Your task to perform on an android device: What's the weather going to be tomorrow? Image 0: 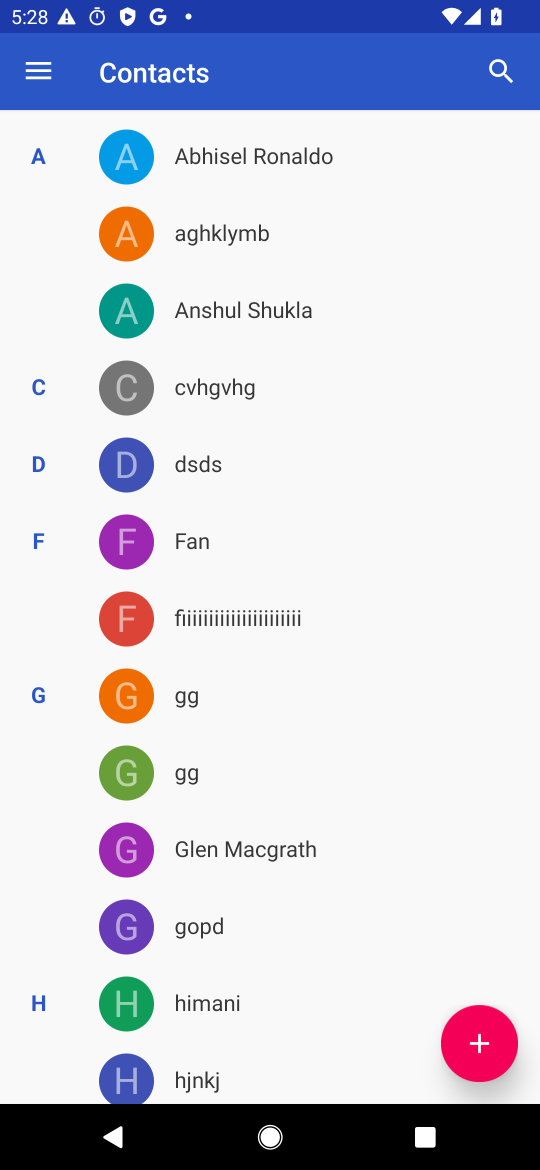
Step 0: press home button
Your task to perform on an android device: What's the weather going to be tomorrow? Image 1: 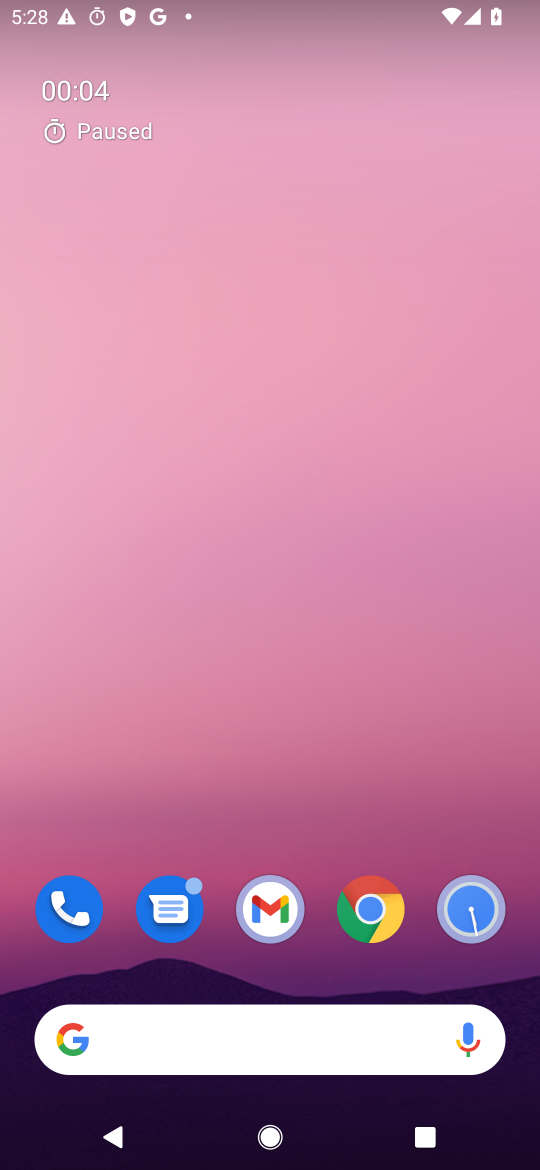
Step 1: click (173, 1047)
Your task to perform on an android device: What's the weather going to be tomorrow? Image 2: 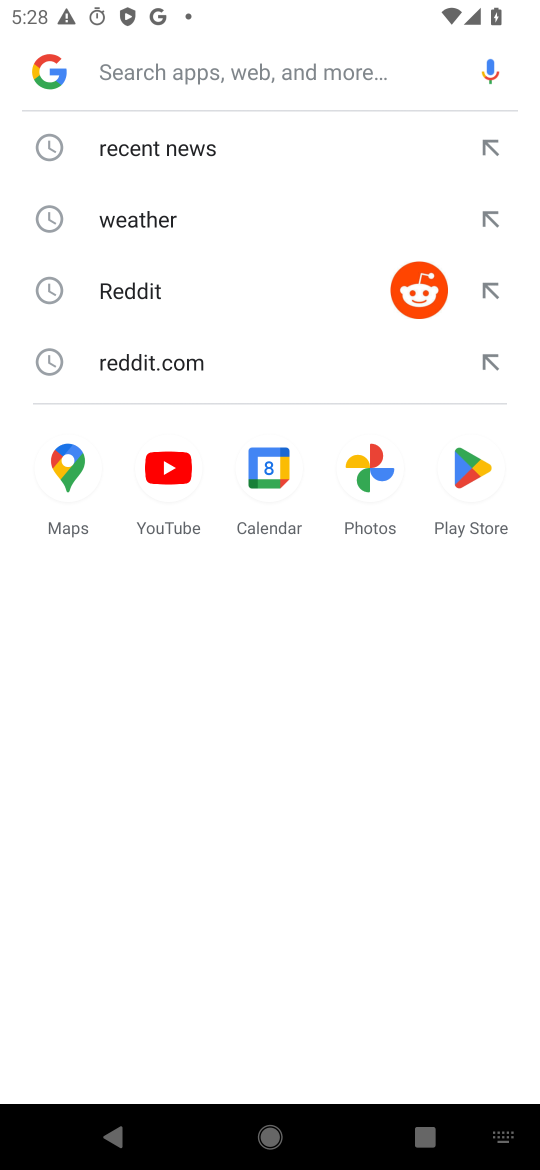
Step 2: click (154, 225)
Your task to perform on an android device: What's the weather going to be tomorrow? Image 3: 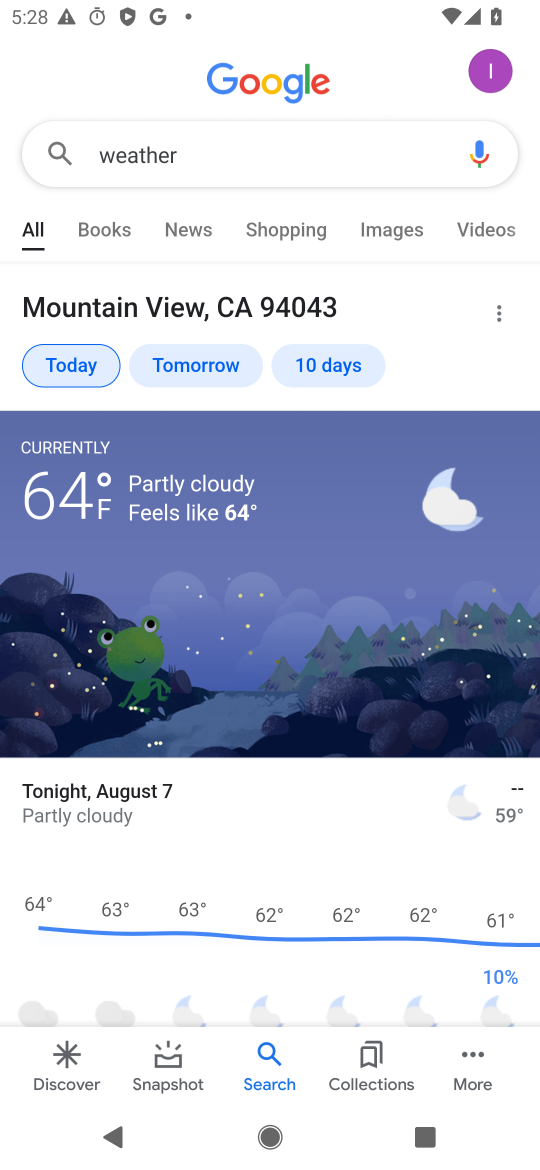
Step 3: click (213, 356)
Your task to perform on an android device: What's the weather going to be tomorrow? Image 4: 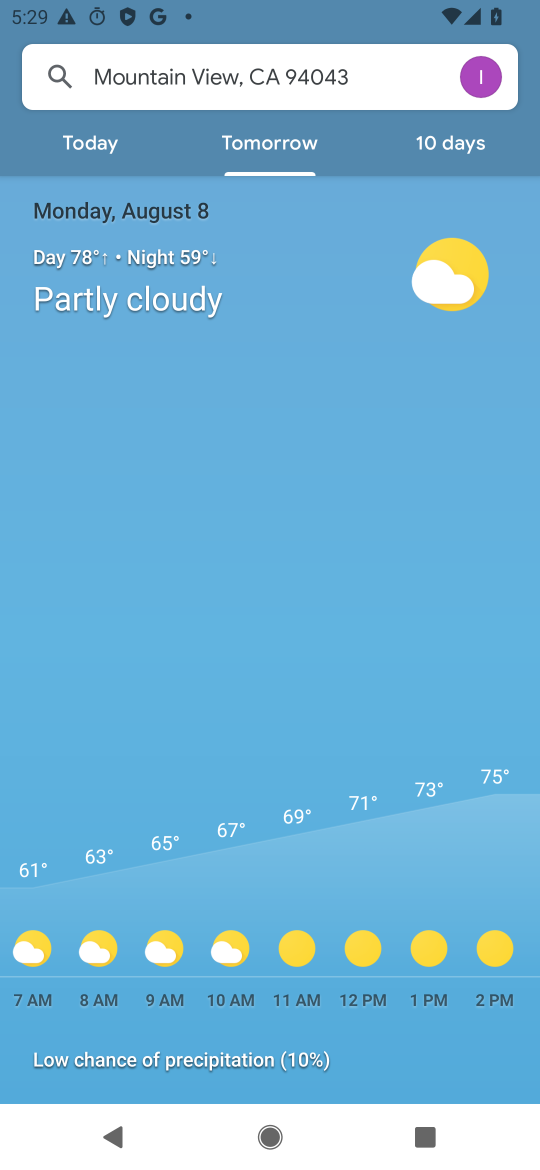
Step 4: task complete